Your task to perform on an android device: open chrome privacy settings Image 0: 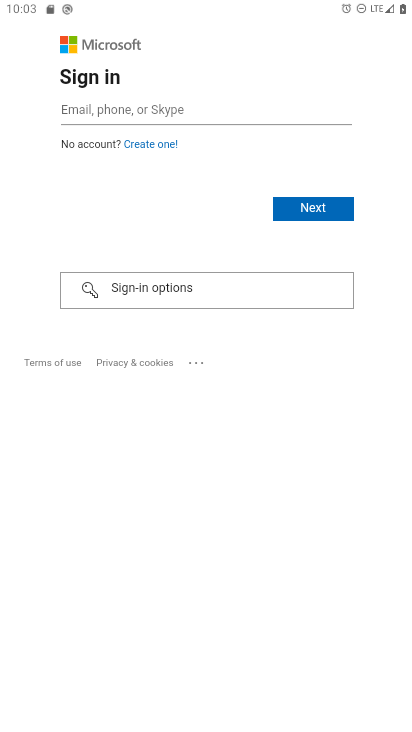
Step 0: press home button
Your task to perform on an android device: open chrome privacy settings Image 1: 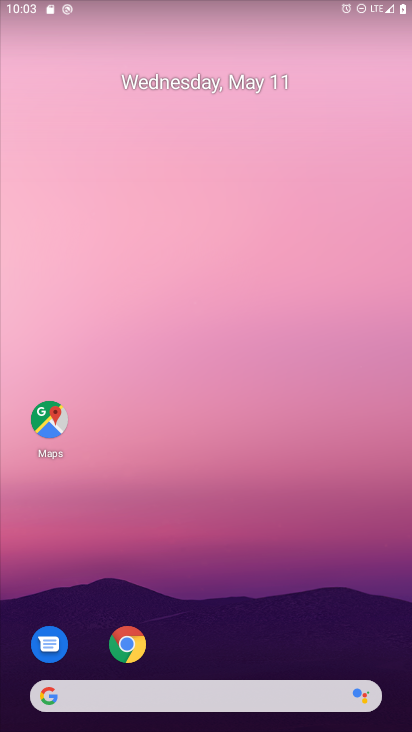
Step 1: click (121, 647)
Your task to perform on an android device: open chrome privacy settings Image 2: 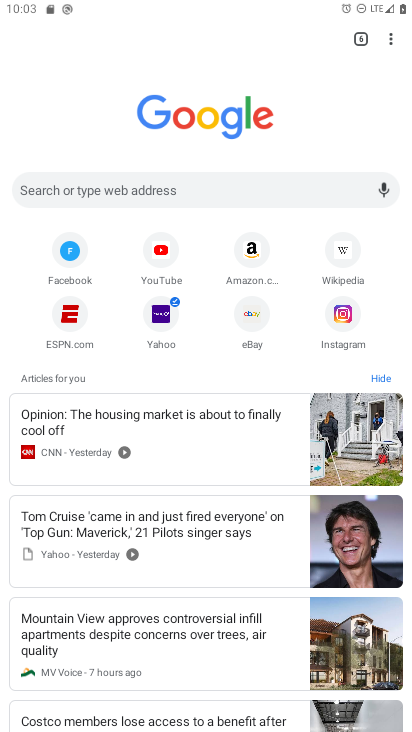
Step 2: click (388, 38)
Your task to perform on an android device: open chrome privacy settings Image 3: 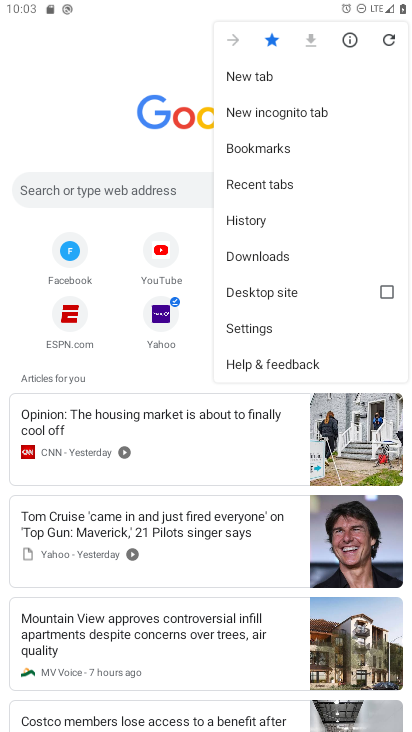
Step 3: click (262, 323)
Your task to perform on an android device: open chrome privacy settings Image 4: 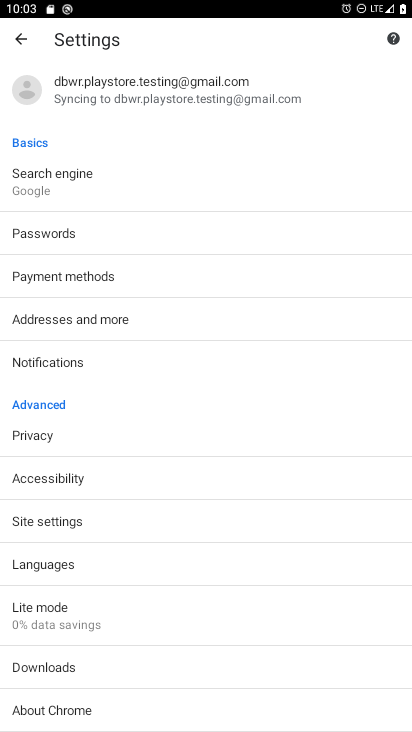
Step 4: click (33, 434)
Your task to perform on an android device: open chrome privacy settings Image 5: 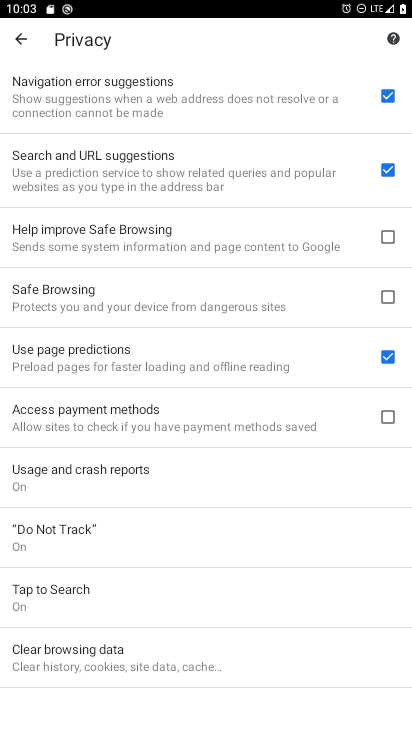
Step 5: task complete